Your task to perform on an android device: Do I have any events today? Image 0: 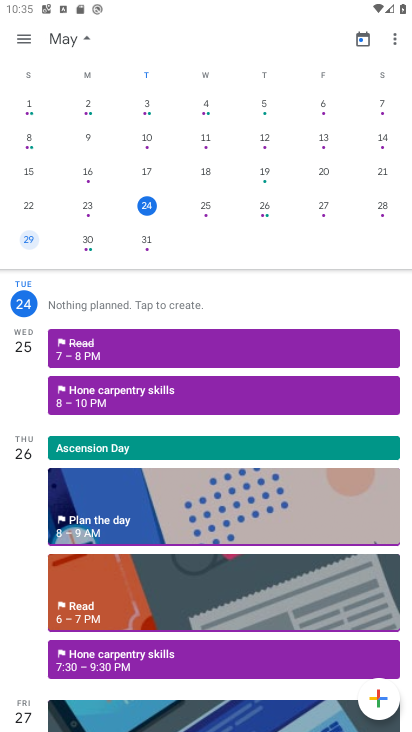
Step 0: click (143, 202)
Your task to perform on an android device: Do I have any events today? Image 1: 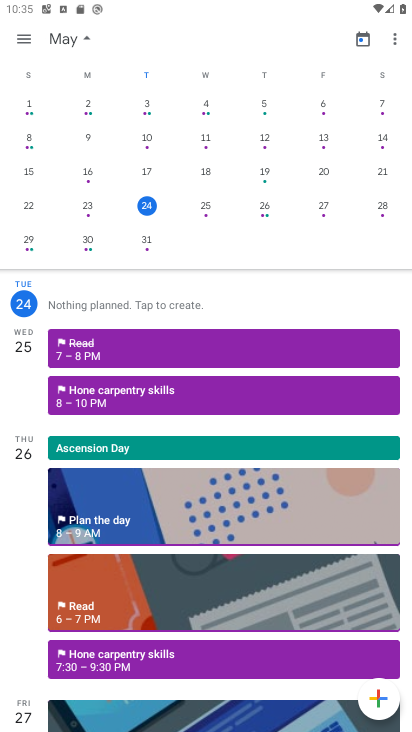
Step 1: task complete